Your task to perform on an android device: toggle pop-ups in chrome Image 0: 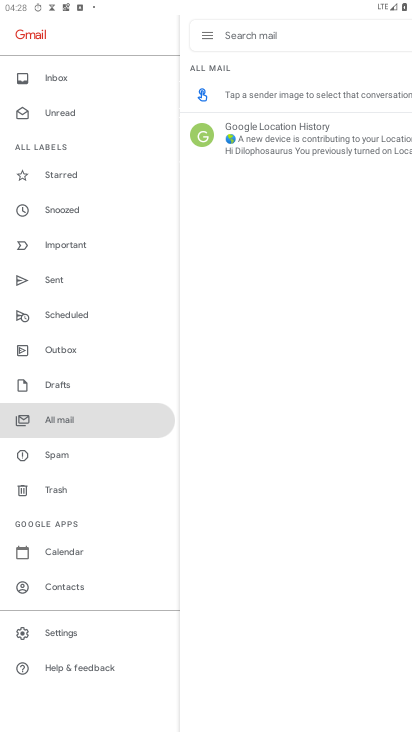
Step 0: press home button
Your task to perform on an android device: toggle pop-ups in chrome Image 1: 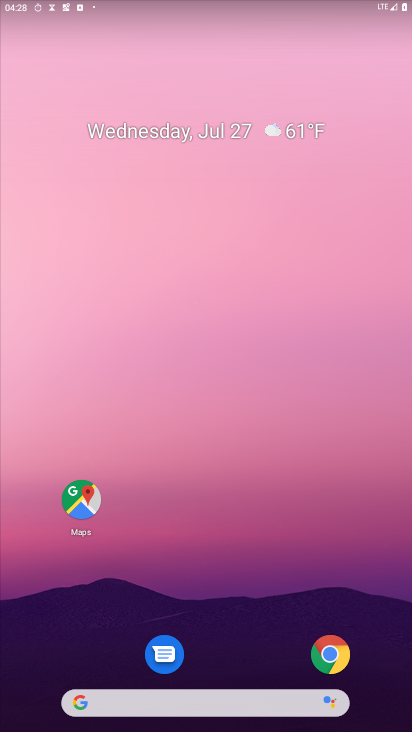
Step 1: drag from (237, 702) to (352, 19)
Your task to perform on an android device: toggle pop-ups in chrome Image 2: 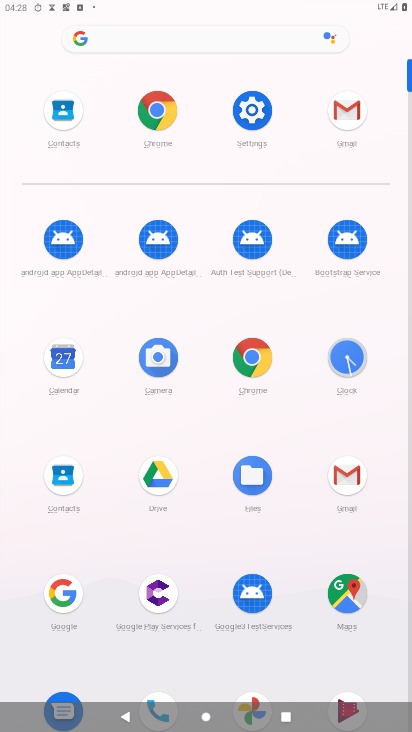
Step 2: click (260, 356)
Your task to perform on an android device: toggle pop-ups in chrome Image 3: 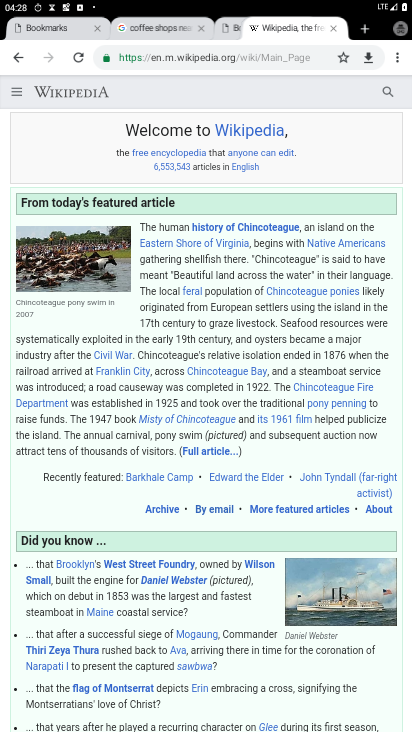
Step 3: click (400, 52)
Your task to perform on an android device: toggle pop-ups in chrome Image 4: 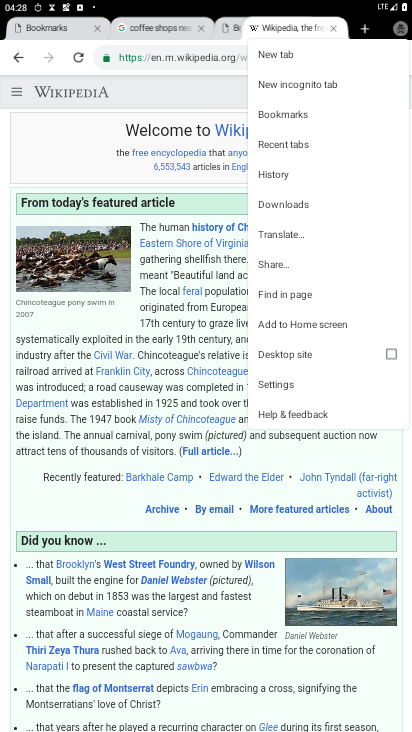
Step 4: click (303, 374)
Your task to perform on an android device: toggle pop-ups in chrome Image 5: 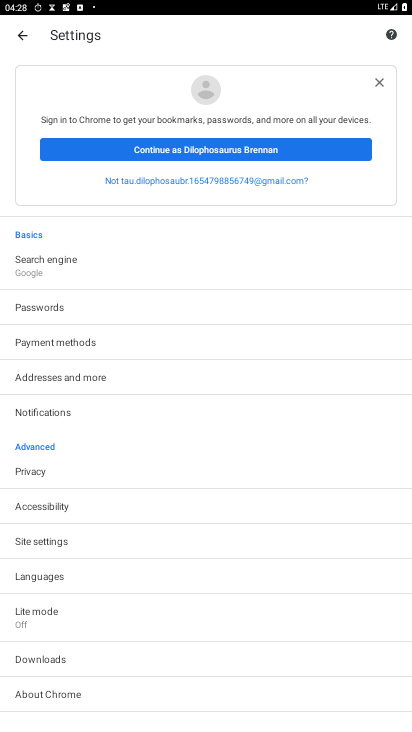
Step 5: drag from (242, 645) to (324, 243)
Your task to perform on an android device: toggle pop-ups in chrome Image 6: 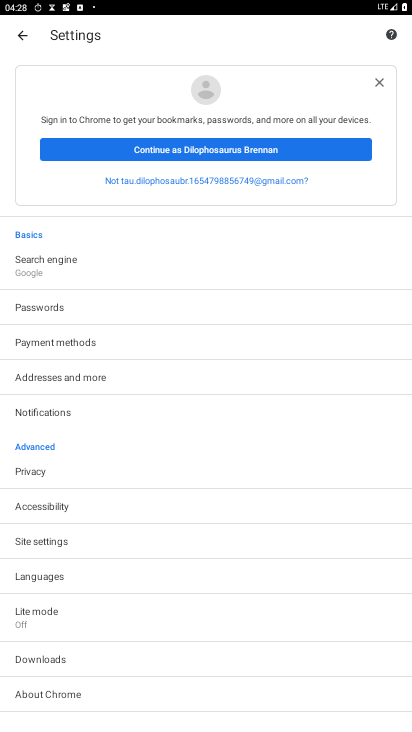
Step 6: drag from (196, 719) to (242, 415)
Your task to perform on an android device: toggle pop-ups in chrome Image 7: 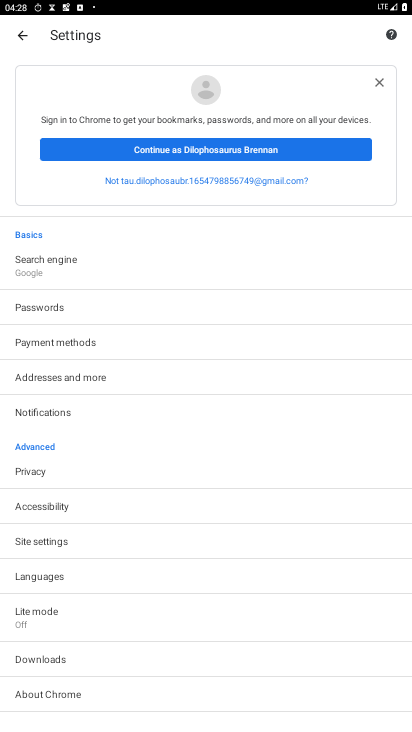
Step 7: click (109, 543)
Your task to perform on an android device: toggle pop-ups in chrome Image 8: 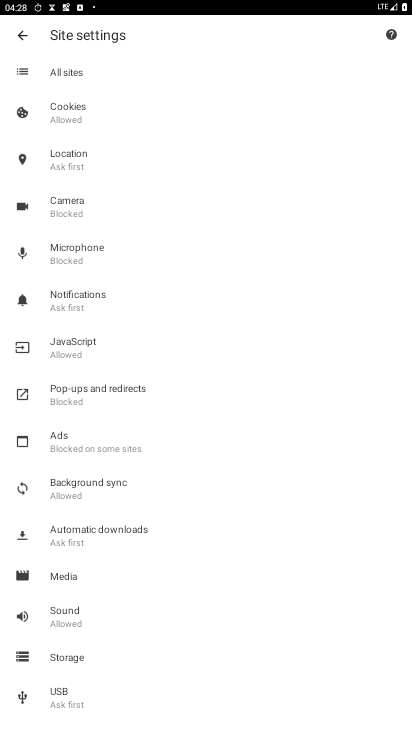
Step 8: click (118, 389)
Your task to perform on an android device: toggle pop-ups in chrome Image 9: 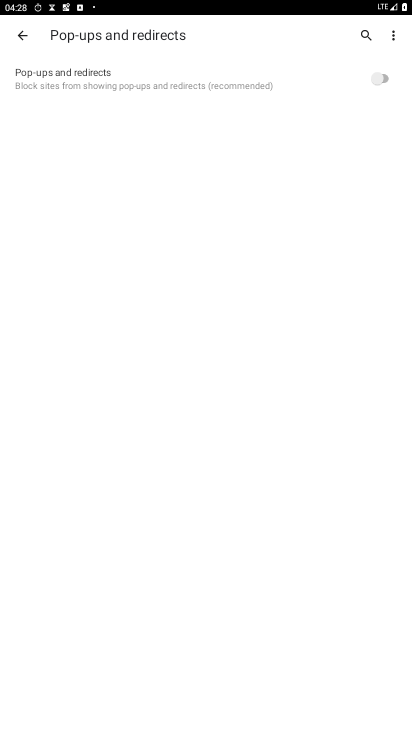
Step 9: task complete